Your task to perform on an android device: open chrome privacy settings Image 0: 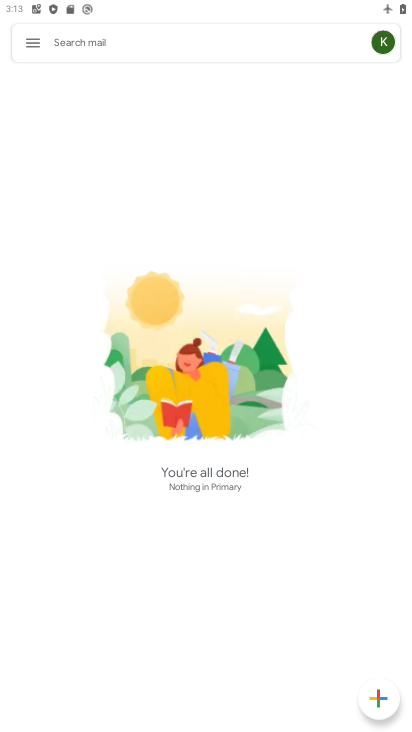
Step 0: press home button
Your task to perform on an android device: open chrome privacy settings Image 1: 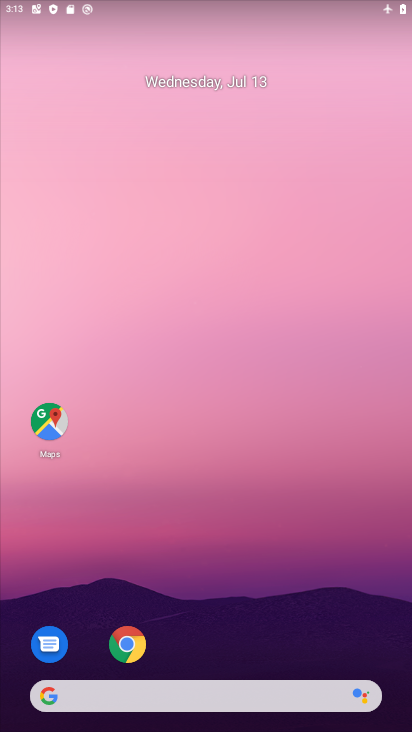
Step 1: drag from (324, 584) to (307, 114)
Your task to perform on an android device: open chrome privacy settings Image 2: 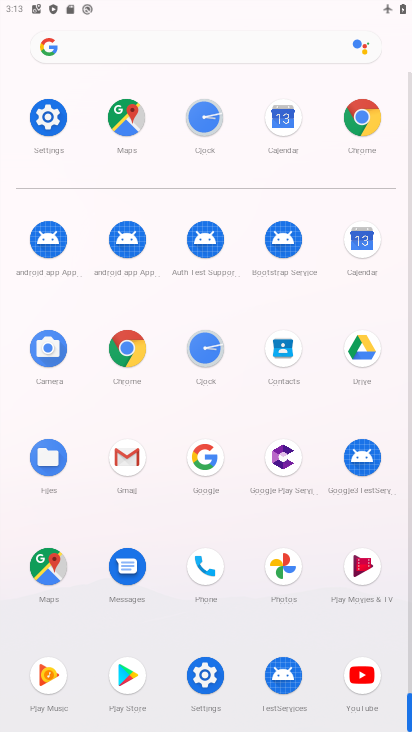
Step 2: click (362, 114)
Your task to perform on an android device: open chrome privacy settings Image 3: 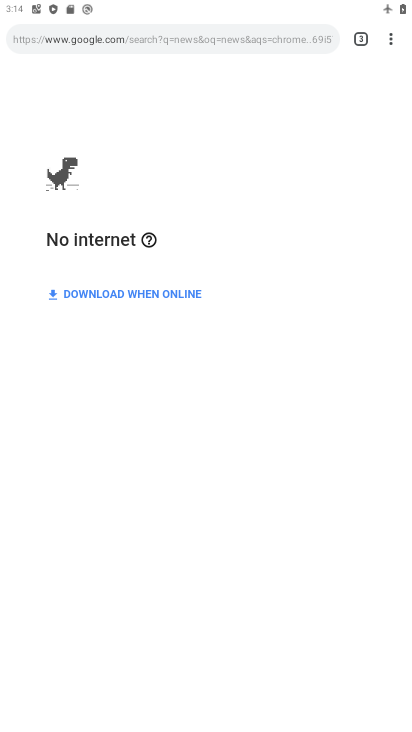
Step 3: click (395, 36)
Your task to perform on an android device: open chrome privacy settings Image 4: 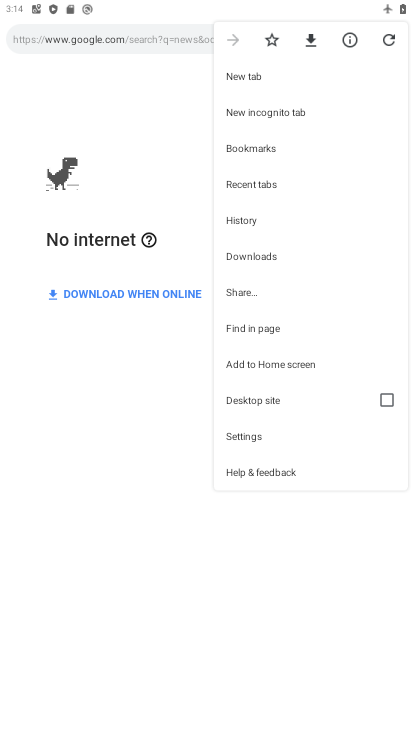
Step 4: click (248, 440)
Your task to perform on an android device: open chrome privacy settings Image 5: 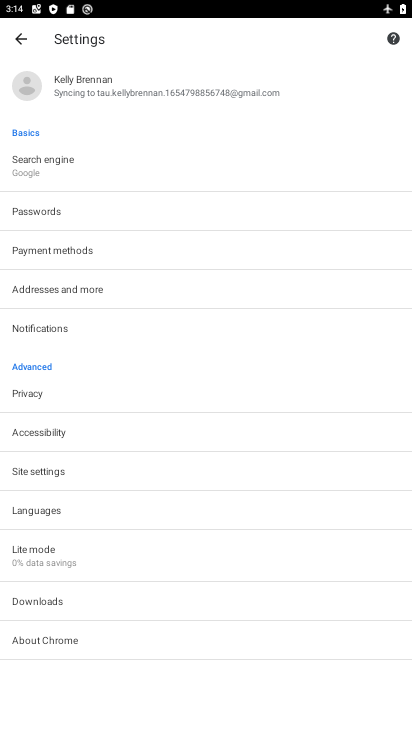
Step 5: click (42, 393)
Your task to perform on an android device: open chrome privacy settings Image 6: 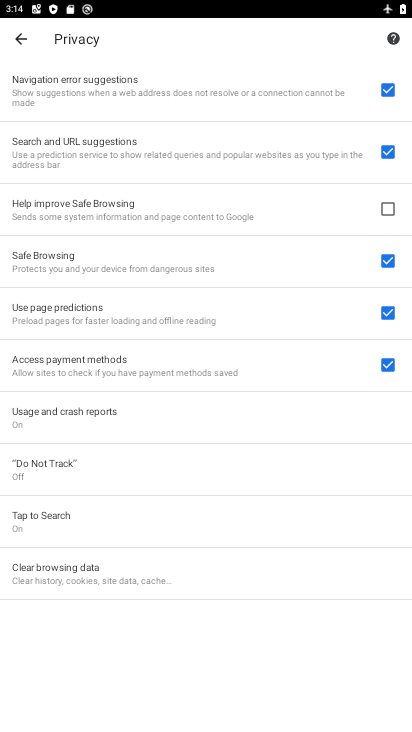
Step 6: task complete